Your task to perform on an android device: turn on data saver in the chrome app Image 0: 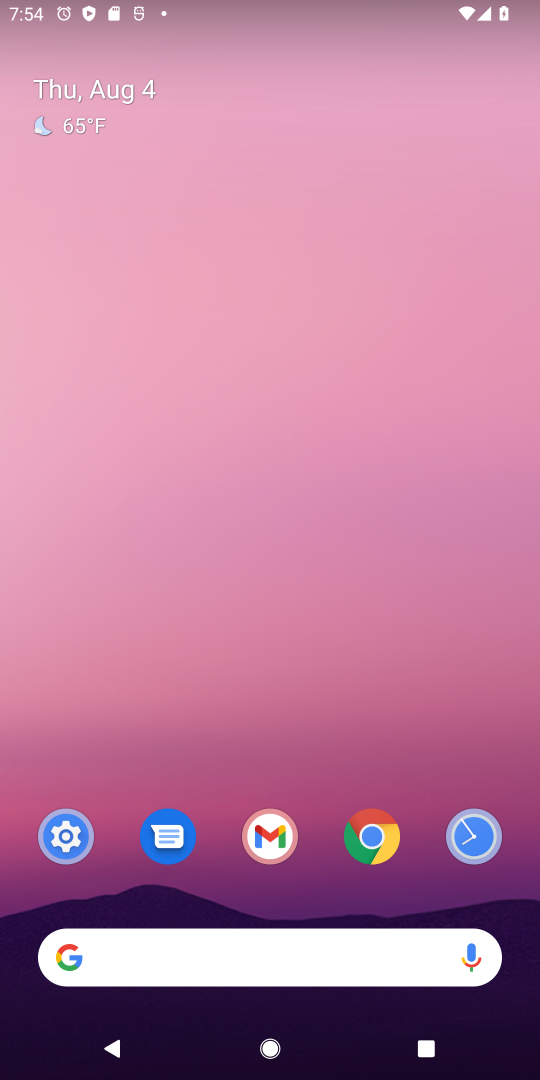
Step 0: click (364, 845)
Your task to perform on an android device: turn on data saver in the chrome app Image 1: 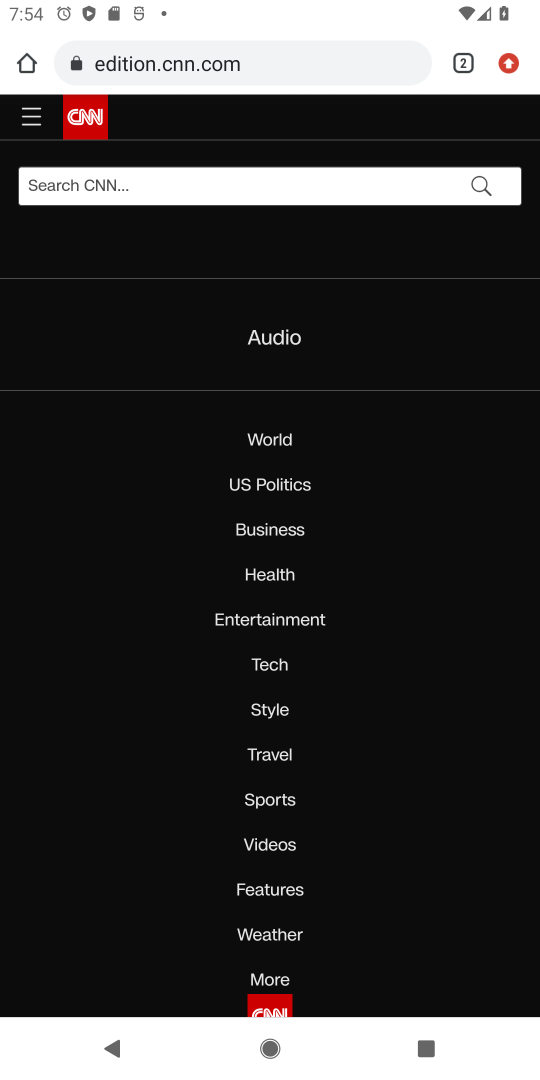
Step 1: drag from (498, 63) to (340, 831)
Your task to perform on an android device: turn on data saver in the chrome app Image 2: 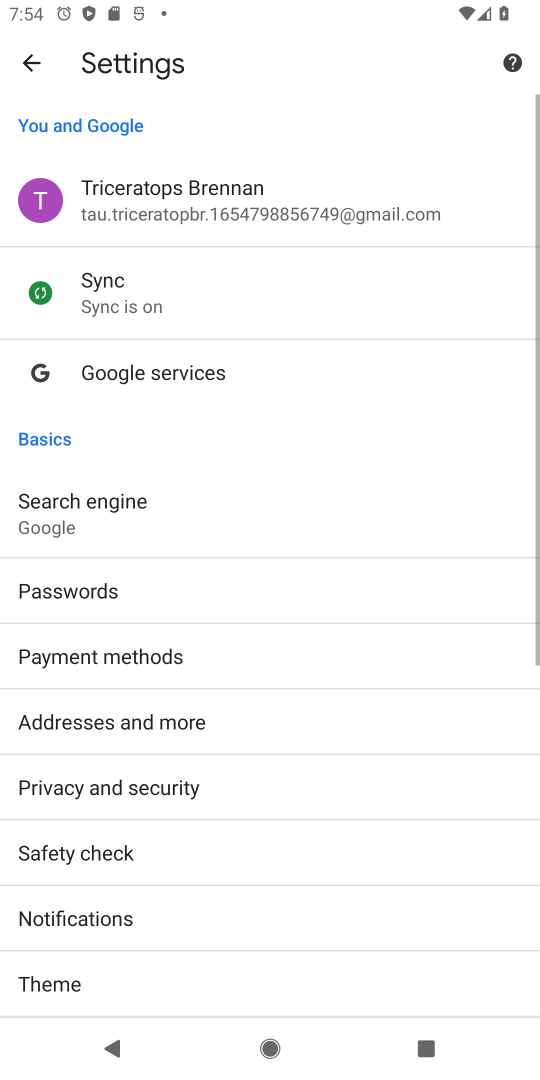
Step 2: drag from (197, 953) to (318, 134)
Your task to perform on an android device: turn on data saver in the chrome app Image 3: 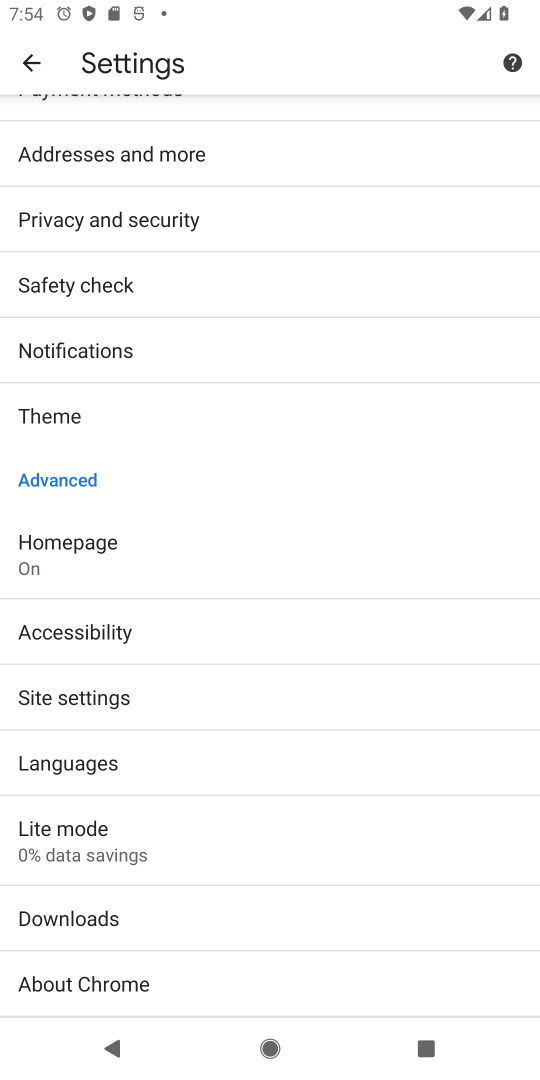
Step 3: click (133, 829)
Your task to perform on an android device: turn on data saver in the chrome app Image 4: 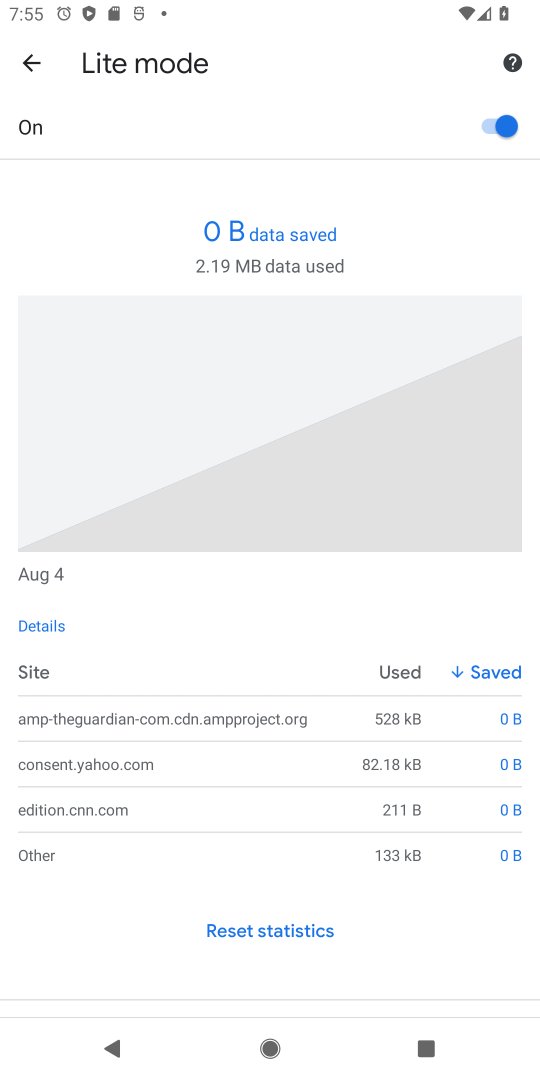
Step 4: task complete